Your task to perform on an android device: Open battery settings Image 0: 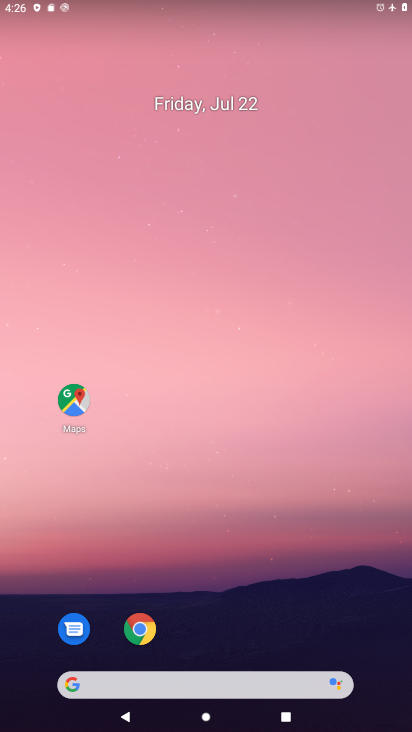
Step 0: drag from (296, 612) to (276, 76)
Your task to perform on an android device: Open battery settings Image 1: 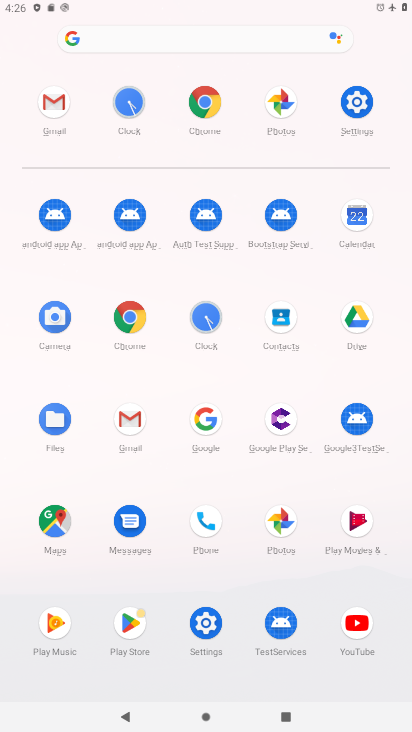
Step 1: click (372, 102)
Your task to perform on an android device: Open battery settings Image 2: 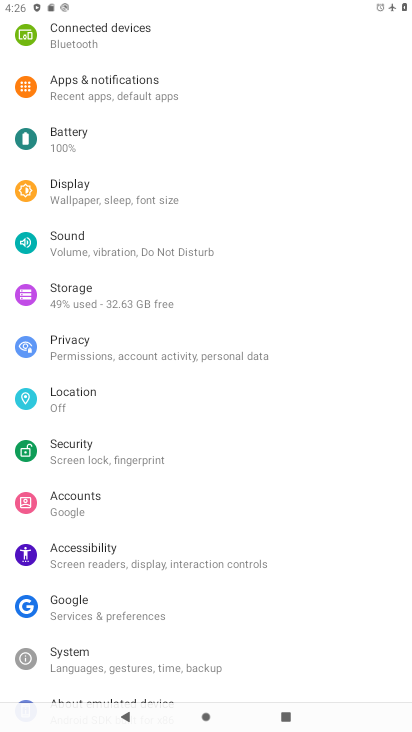
Step 2: click (102, 140)
Your task to perform on an android device: Open battery settings Image 3: 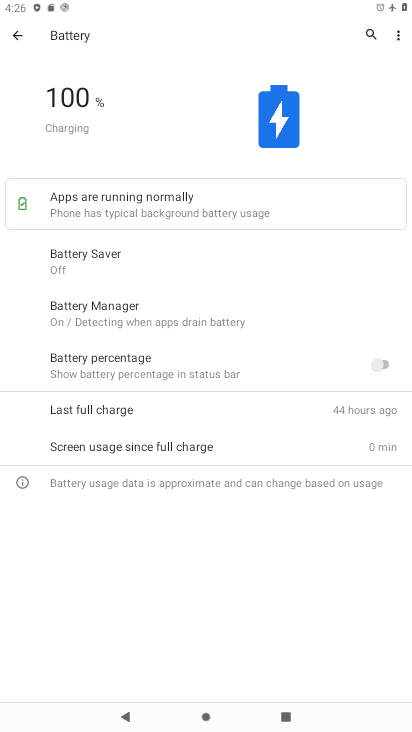
Step 3: task complete